Your task to perform on an android device: Open settings on Google Maps Image 0: 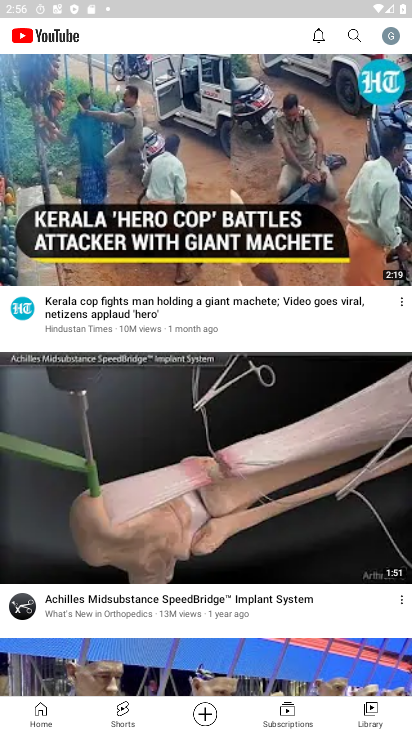
Step 0: press home button
Your task to perform on an android device: Open settings on Google Maps Image 1: 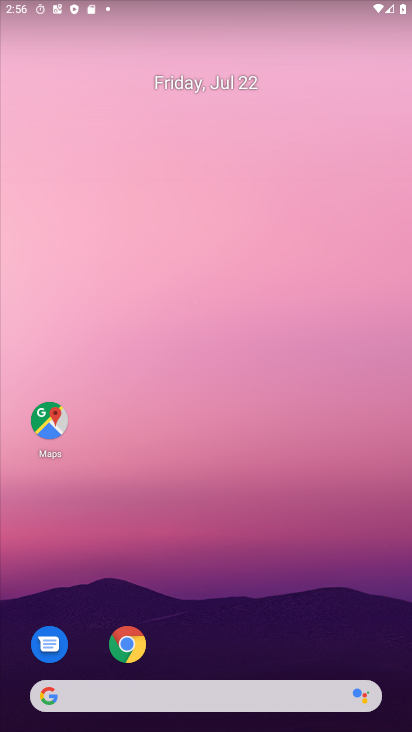
Step 1: drag from (258, 636) to (184, 173)
Your task to perform on an android device: Open settings on Google Maps Image 2: 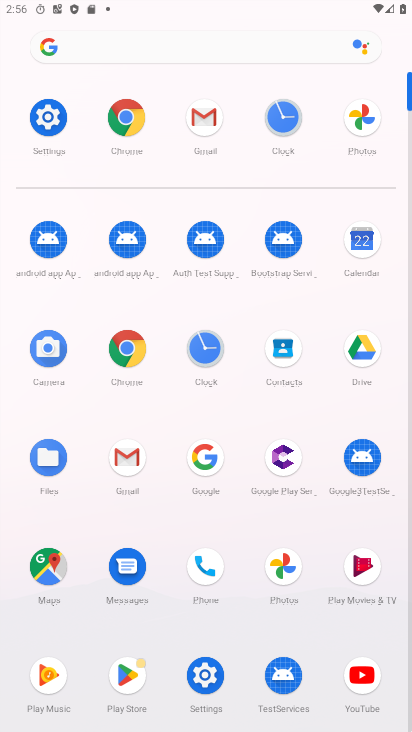
Step 2: click (47, 559)
Your task to perform on an android device: Open settings on Google Maps Image 3: 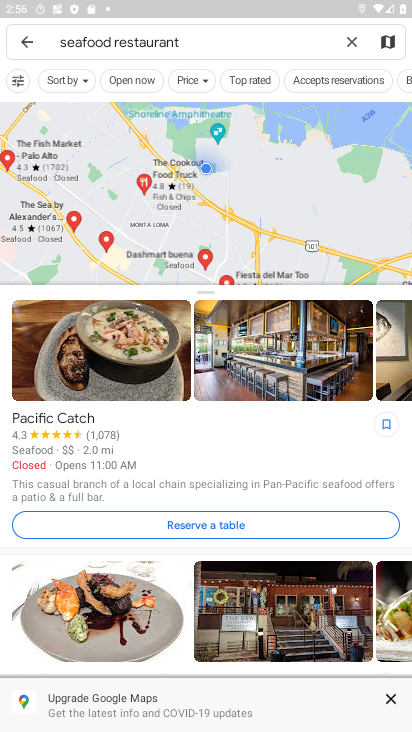
Step 3: click (348, 33)
Your task to perform on an android device: Open settings on Google Maps Image 4: 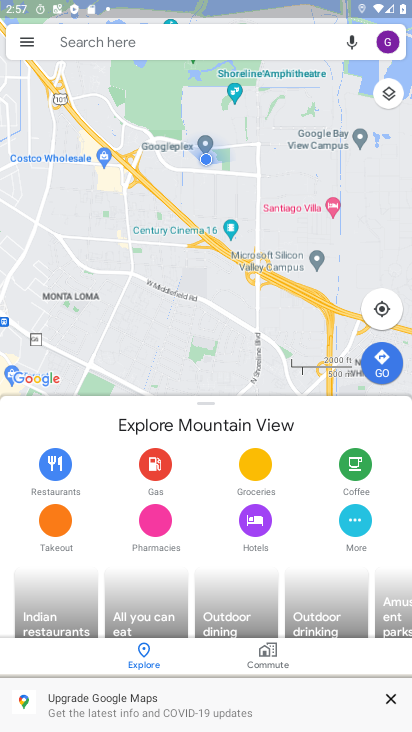
Step 4: click (25, 37)
Your task to perform on an android device: Open settings on Google Maps Image 5: 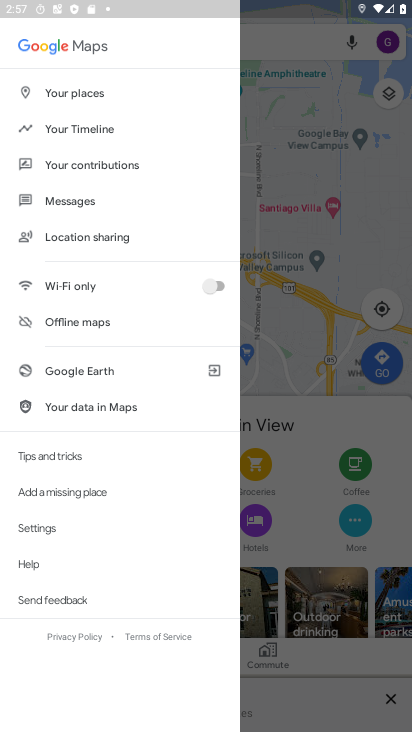
Step 5: click (45, 521)
Your task to perform on an android device: Open settings on Google Maps Image 6: 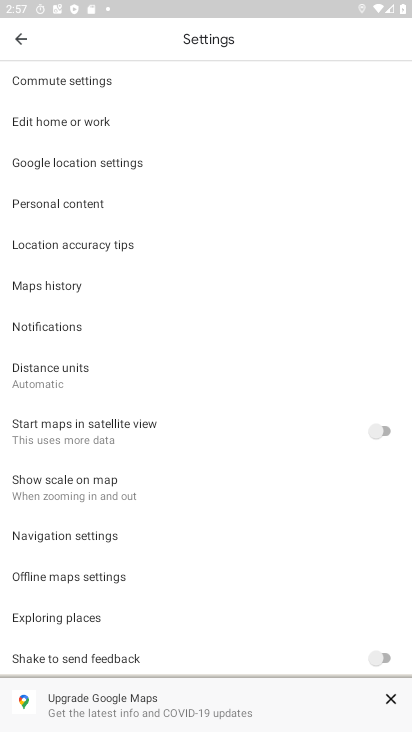
Step 6: task complete